Your task to perform on an android device: Open eBay Image 0: 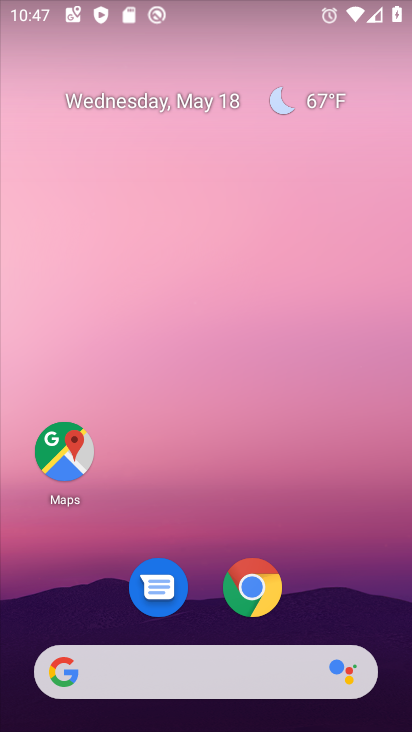
Step 0: click (240, 580)
Your task to perform on an android device: Open eBay Image 1: 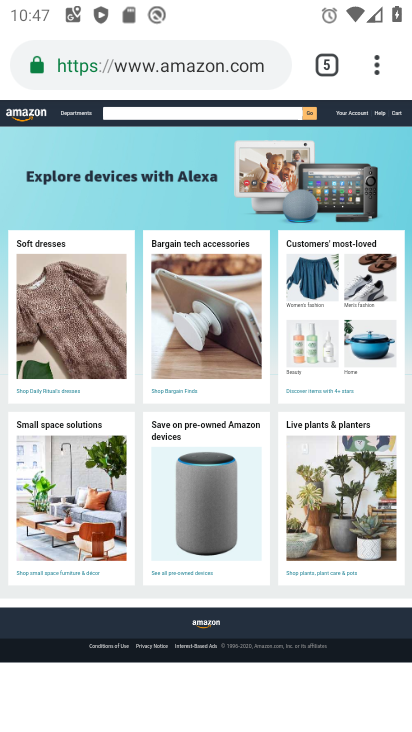
Step 1: click (327, 62)
Your task to perform on an android device: Open eBay Image 2: 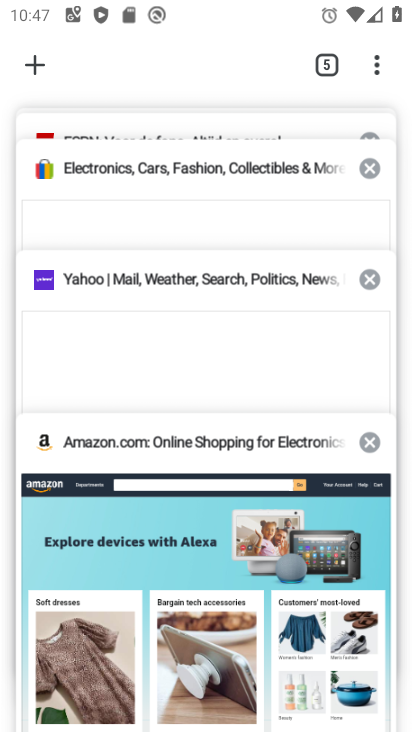
Step 2: drag from (229, 189) to (187, 423)
Your task to perform on an android device: Open eBay Image 3: 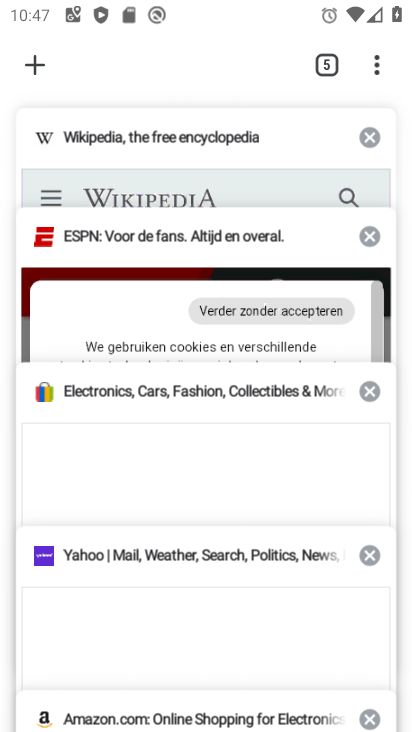
Step 3: drag from (211, 142) to (141, 527)
Your task to perform on an android device: Open eBay Image 4: 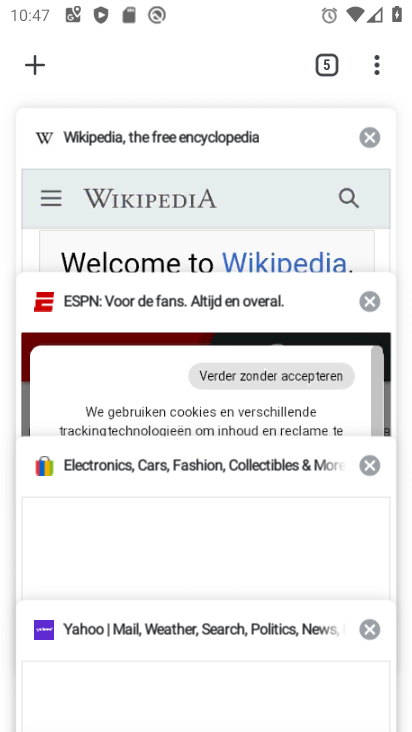
Step 4: drag from (184, 141) to (118, 395)
Your task to perform on an android device: Open eBay Image 5: 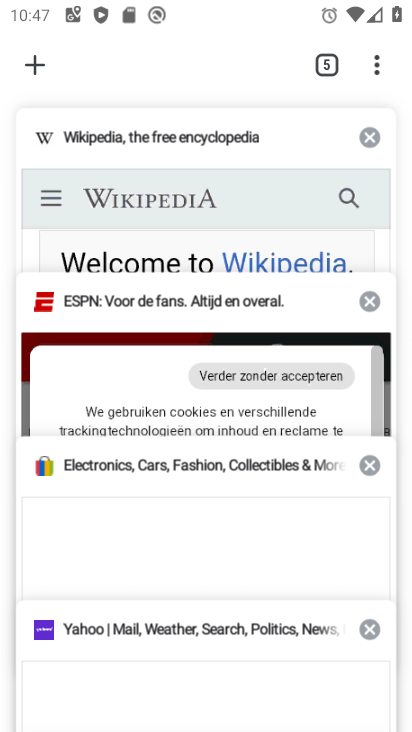
Step 5: click (26, 55)
Your task to perform on an android device: Open eBay Image 6: 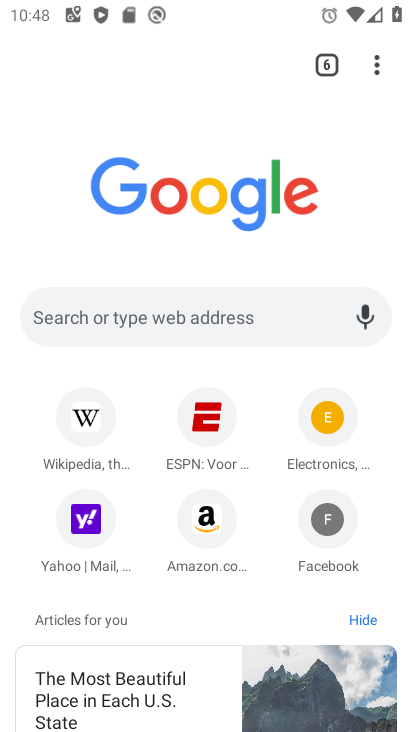
Step 6: click (210, 327)
Your task to perform on an android device: Open eBay Image 7: 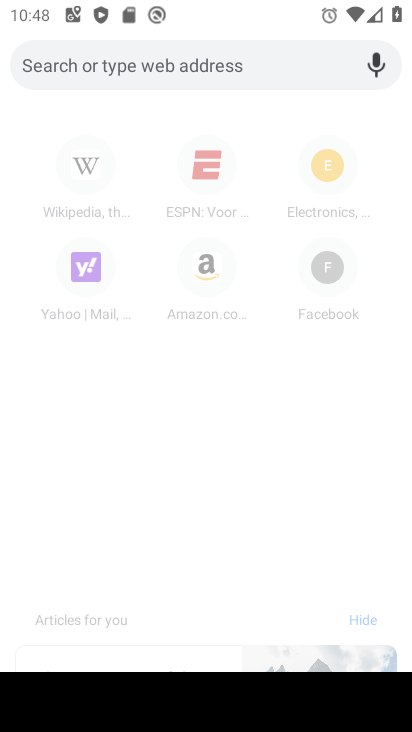
Step 7: type "Ebay"
Your task to perform on an android device: Open eBay Image 8: 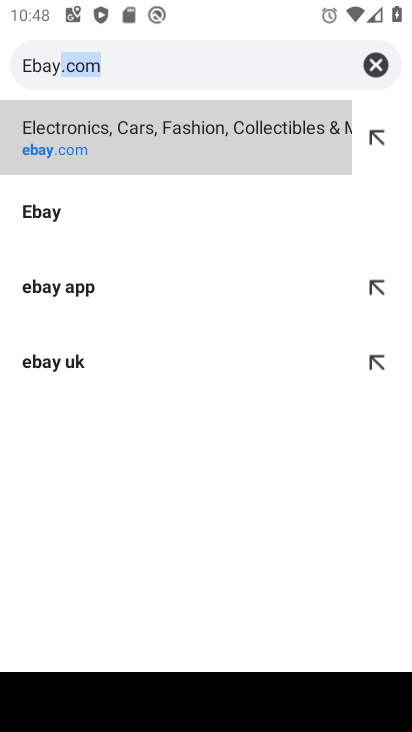
Step 8: click (33, 136)
Your task to perform on an android device: Open eBay Image 9: 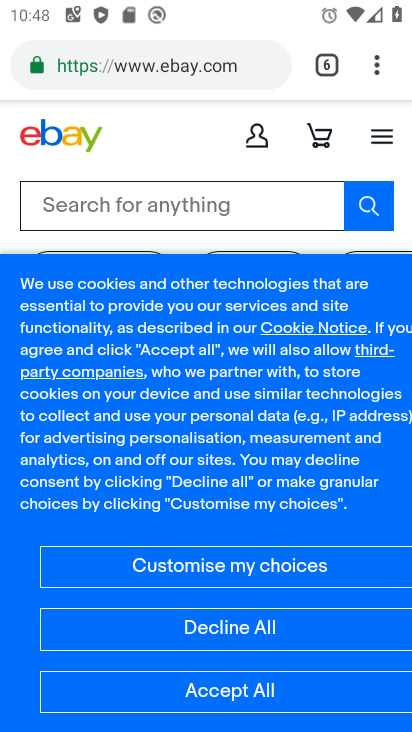
Step 9: task complete